Your task to perform on an android device: Search for energizer triple a on walmart.com, select the first entry, and add it to the cart. Image 0: 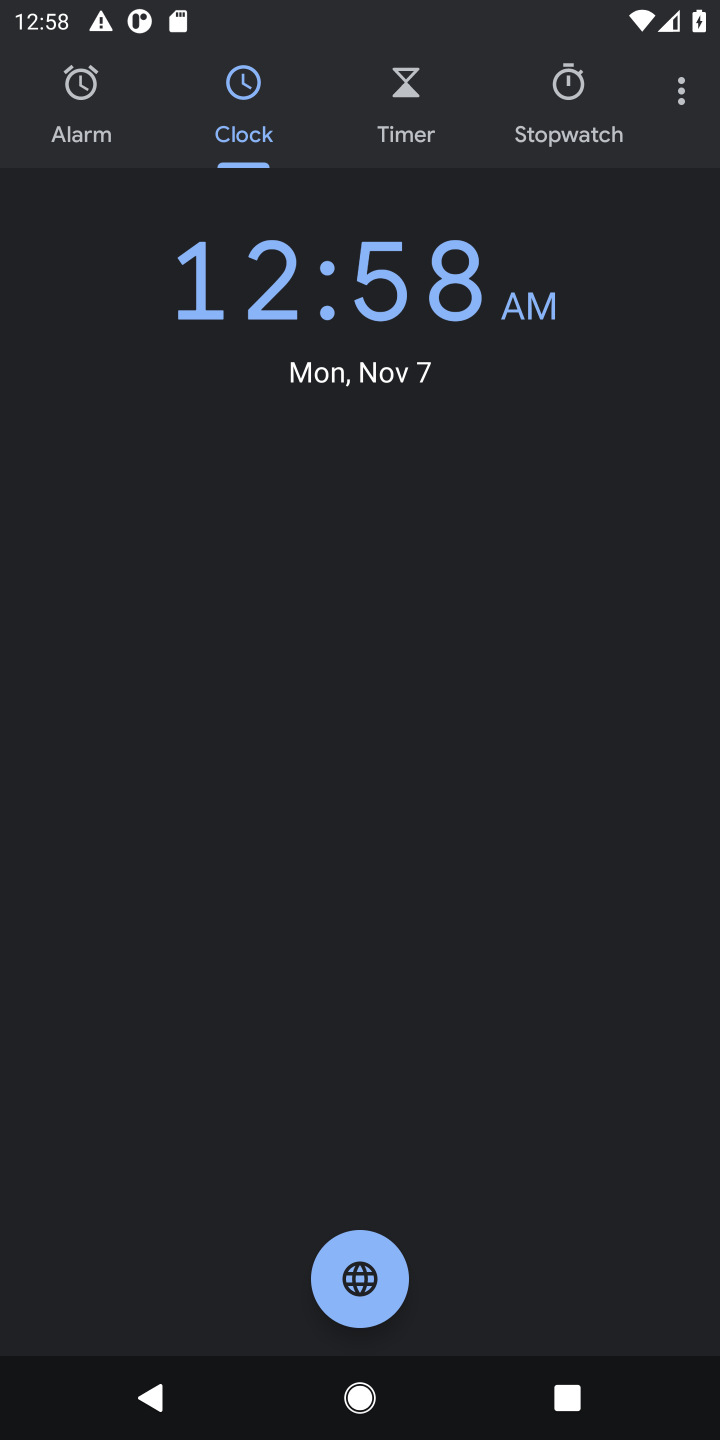
Step 0: press home button
Your task to perform on an android device: Search for energizer triple a on walmart.com, select the first entry, and add it to the cart. Image 1: 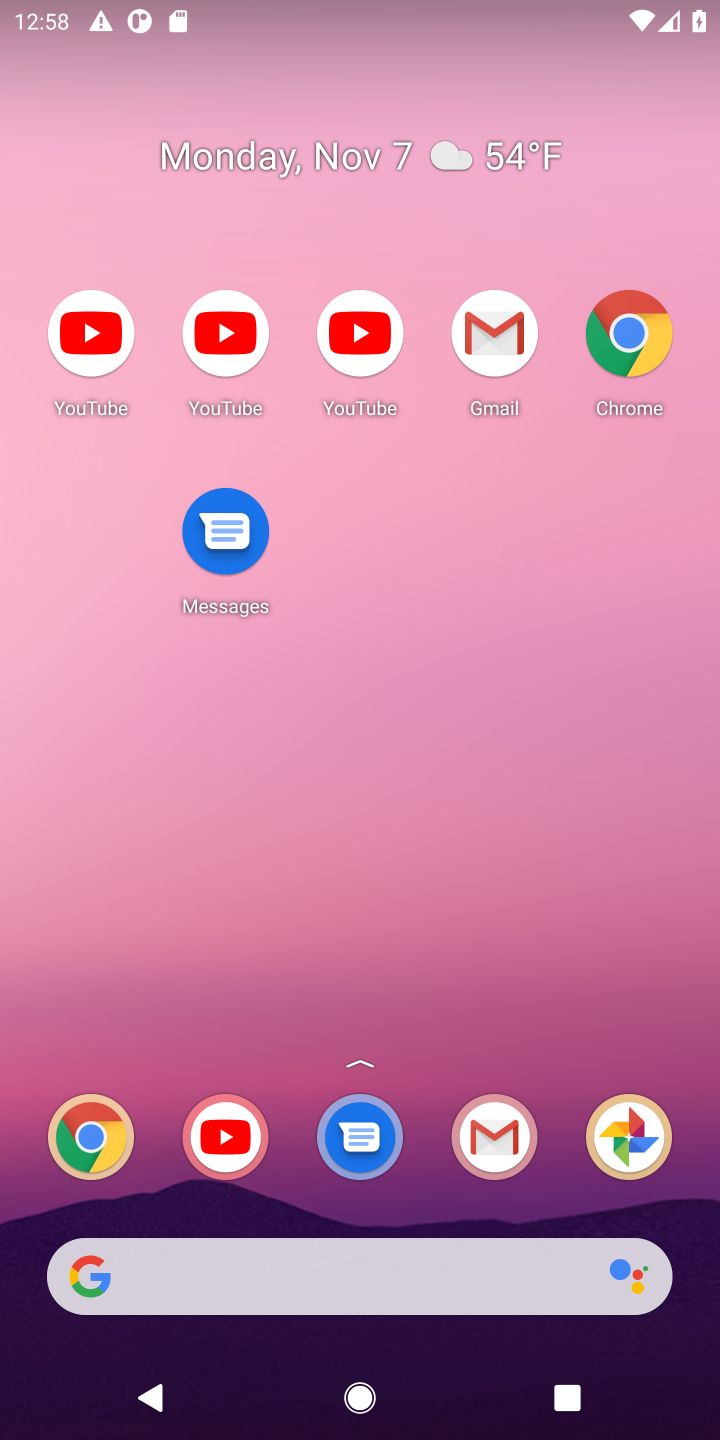
Step 1: drag from (410, 1178) to (352, 181)
Your task to perform on an android device: Search for energizer triple a on walmart.com, select the first entry, and add it to the cart. Image 2: 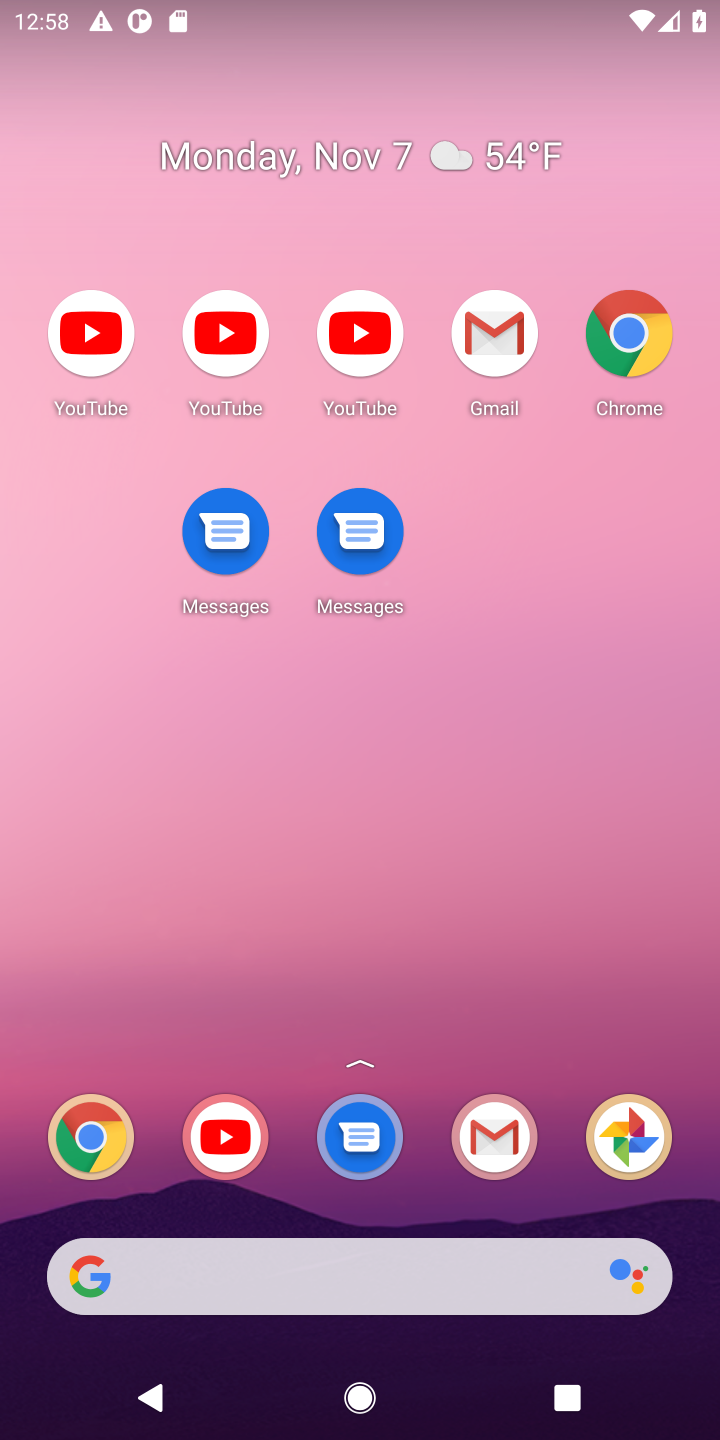
Step 2: drag from (431, 1192) to (419, 237)
Your task to perform on an android device: Search for energizer triple a on walmart.com, select the first entry, and add it to the cart. Image 3: 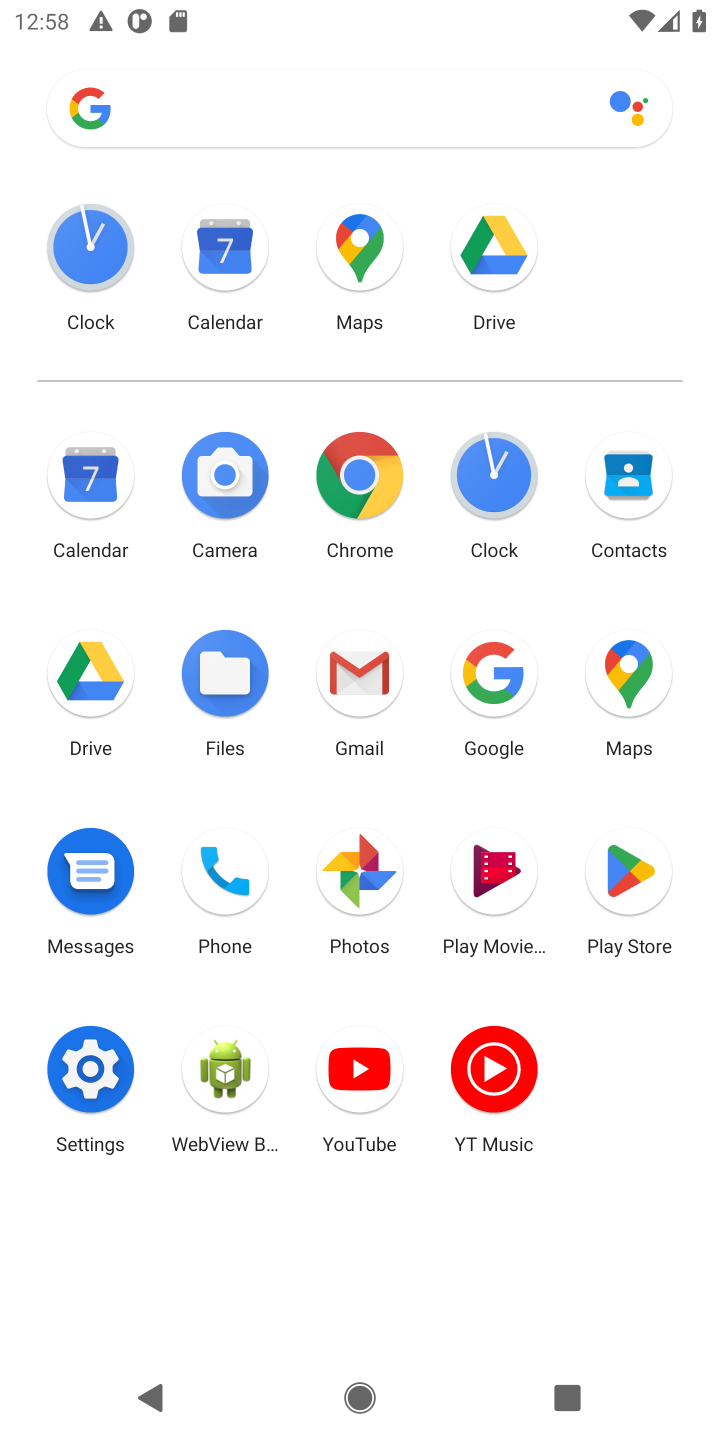
Step 3: click (364, 471)
Your task to perform on an android device: Search for energizer triple a on walmart.com, select the first entry, and add it to the cart. Image 4: 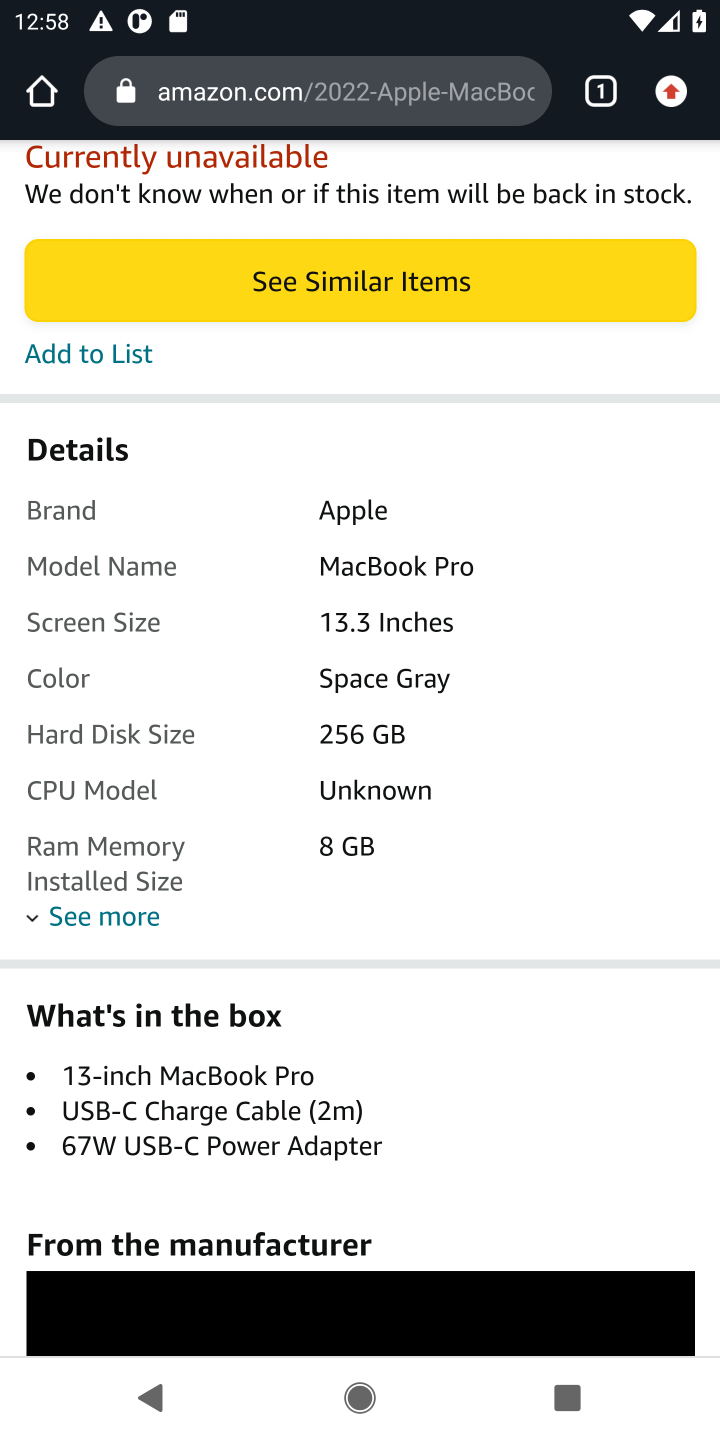
Step 4: drag from (445, 184) to (468, 921)
Your task to perform on an android device: Search for energizer triple a on walmart.com, select the first entry, and add it to the cart. Image 5: 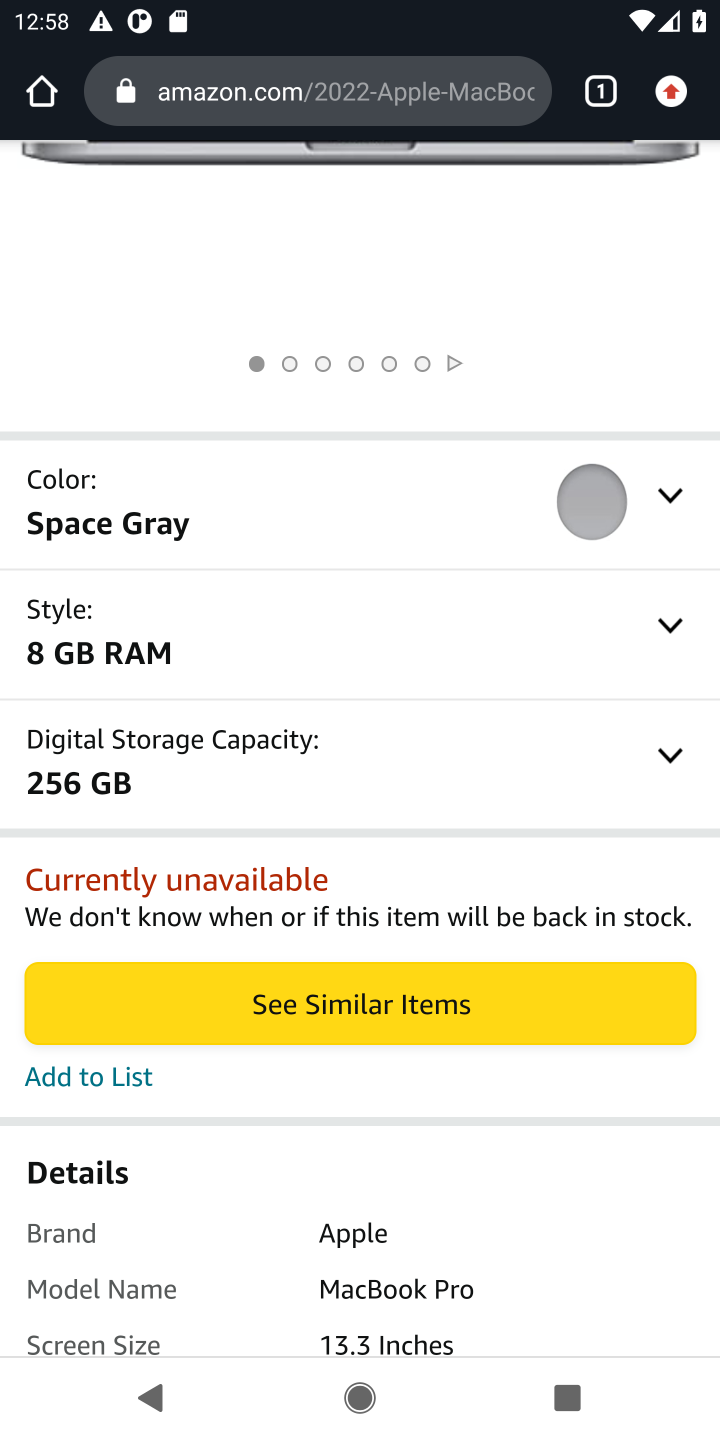
Step 5: drag from (439, 441) to (532, 1038)
Your task to perform on an android device: Search for energizer triple a on walmart.com, select the first entry, and add it to the cart. Image 6: 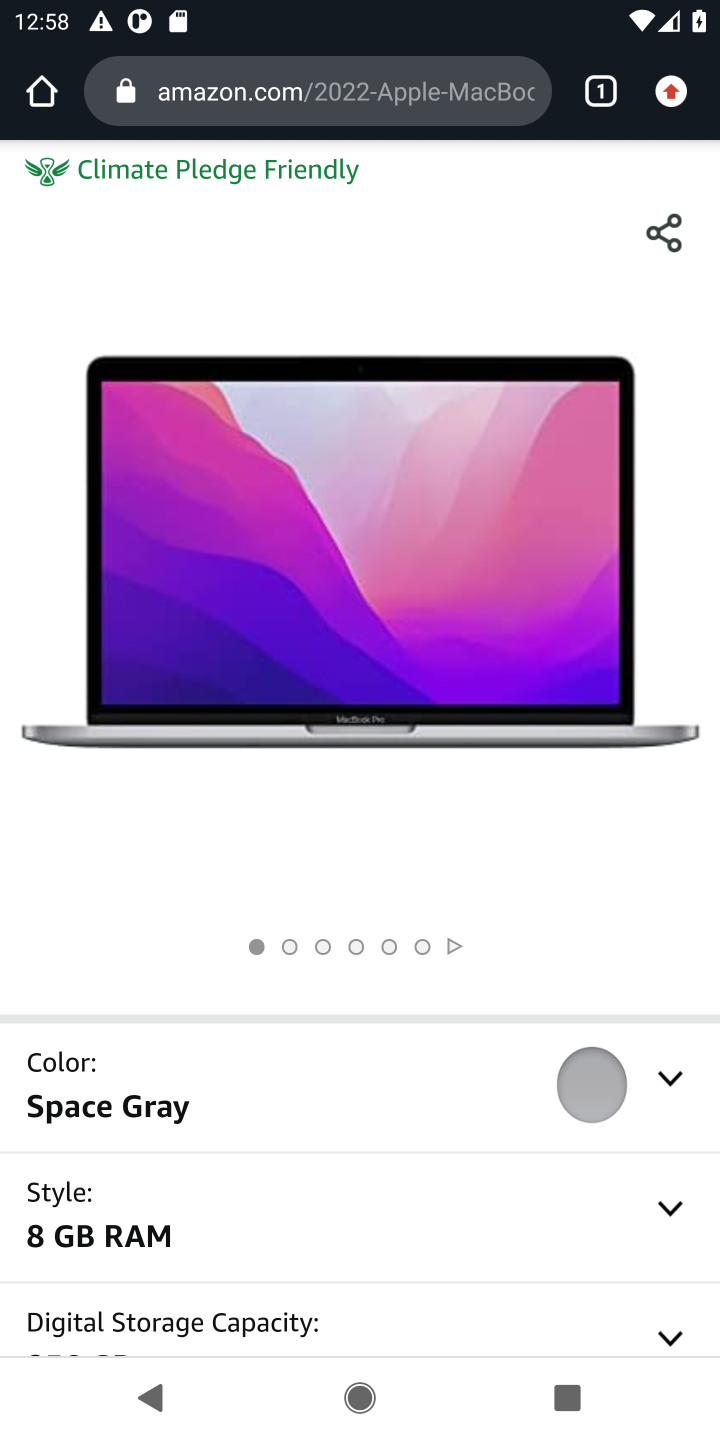
Step 6: click (404, 93)
Your task to perform on an android device: Search for energizer triple a on walmart.com, select the first entry, and add it to the cart. Image 7: 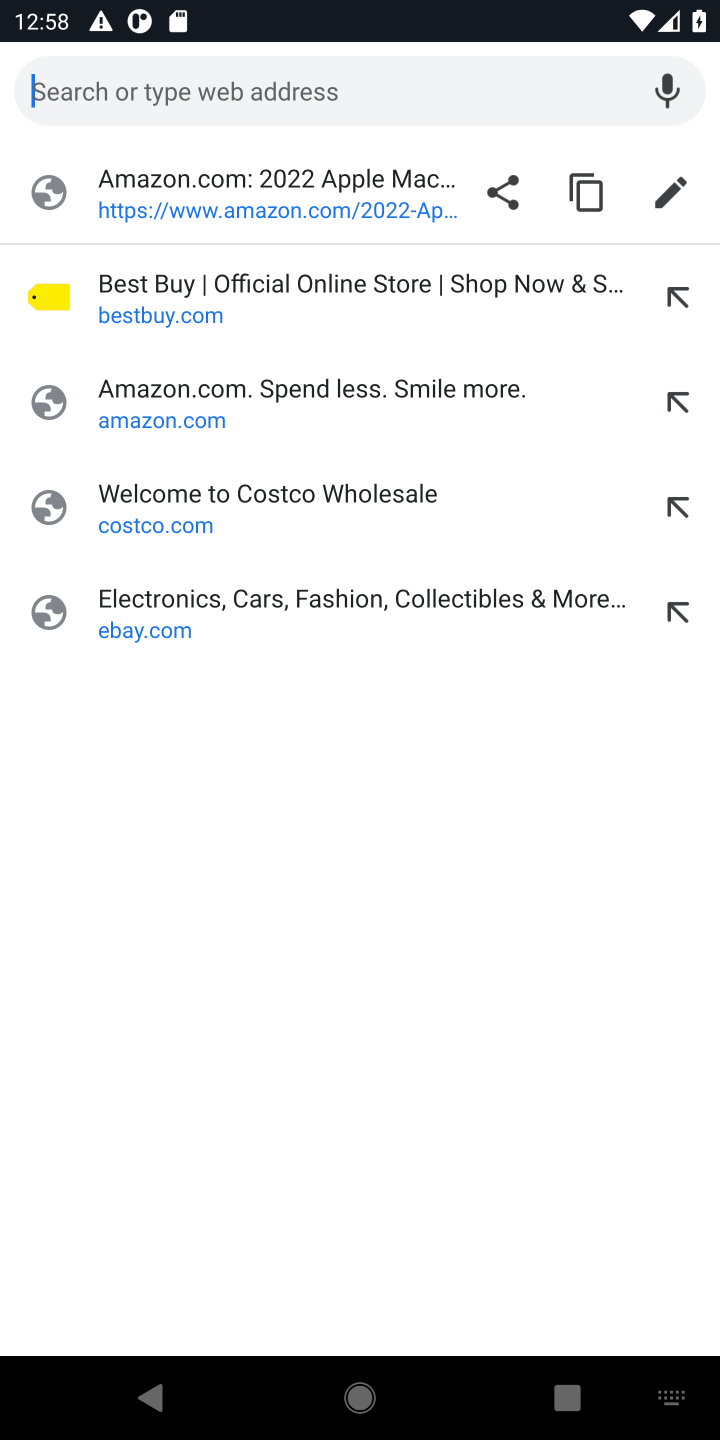
Step 7: type "walmart.com"
Your task to perform on an android device: Search for energizer triple a on walmart.com, select the first entry, and add it to the cart. Image 8: 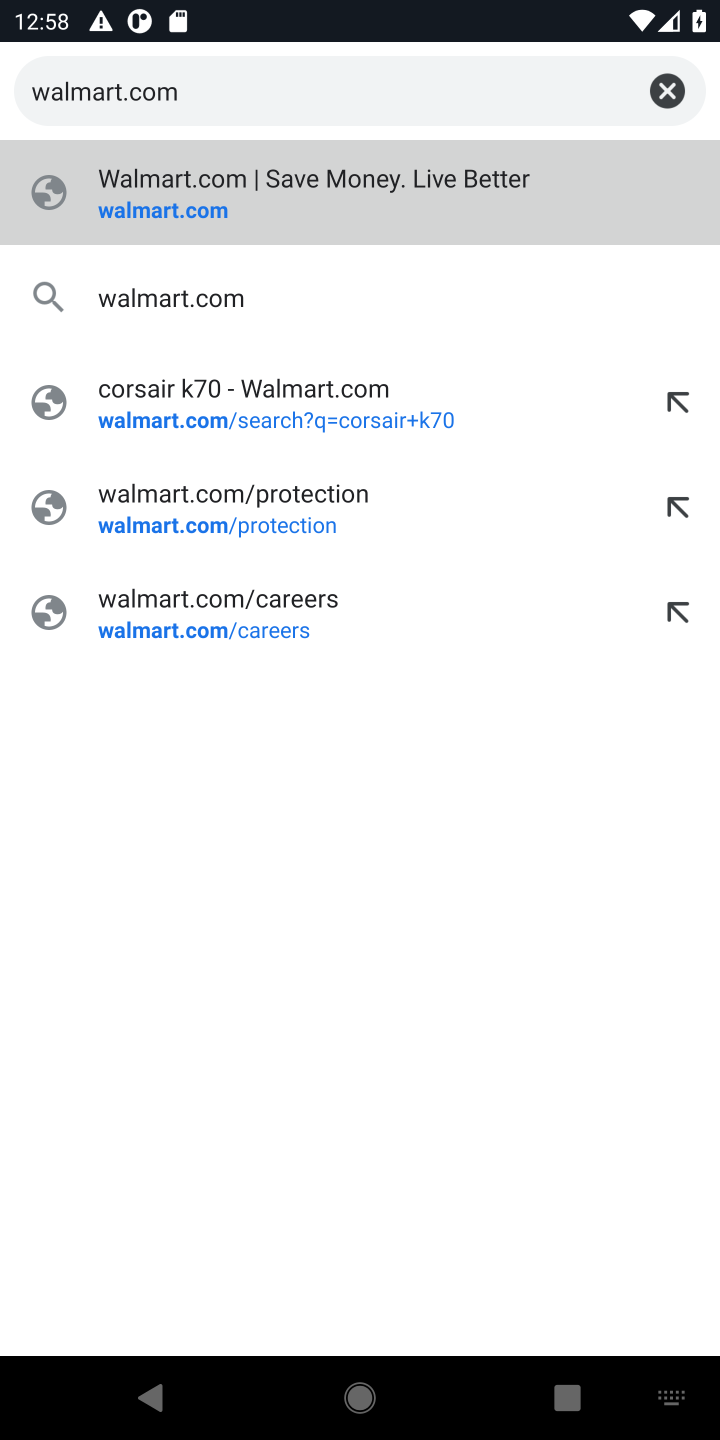
Step 8: press enter
Your task to perform on an android device: Search for energizer triple a on walmart.com, select the first entry, and add it to the cart. Image 9: 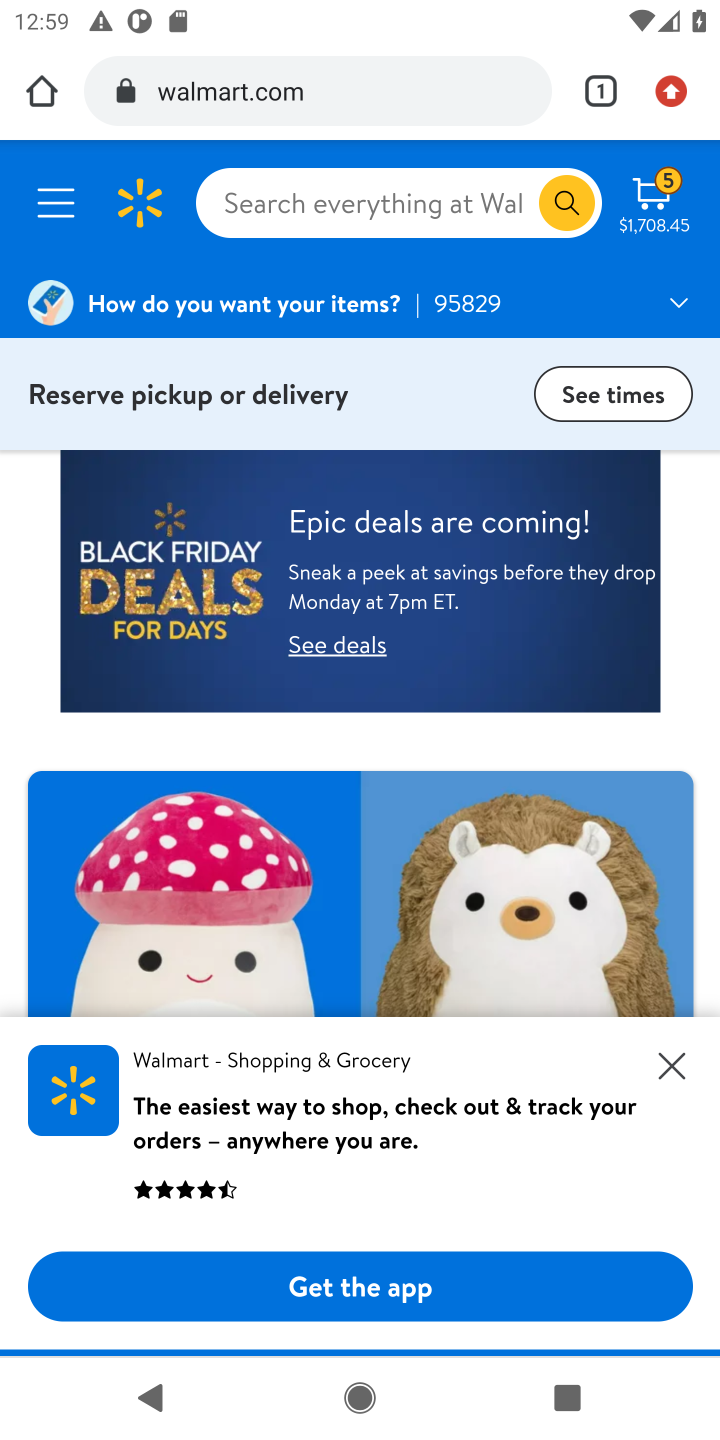
Step 9: click (334, 203)
Your task to perform on an android device: Search for energizer triple a on walmart.com, select the first entry, and add it to the cart. Image 10: 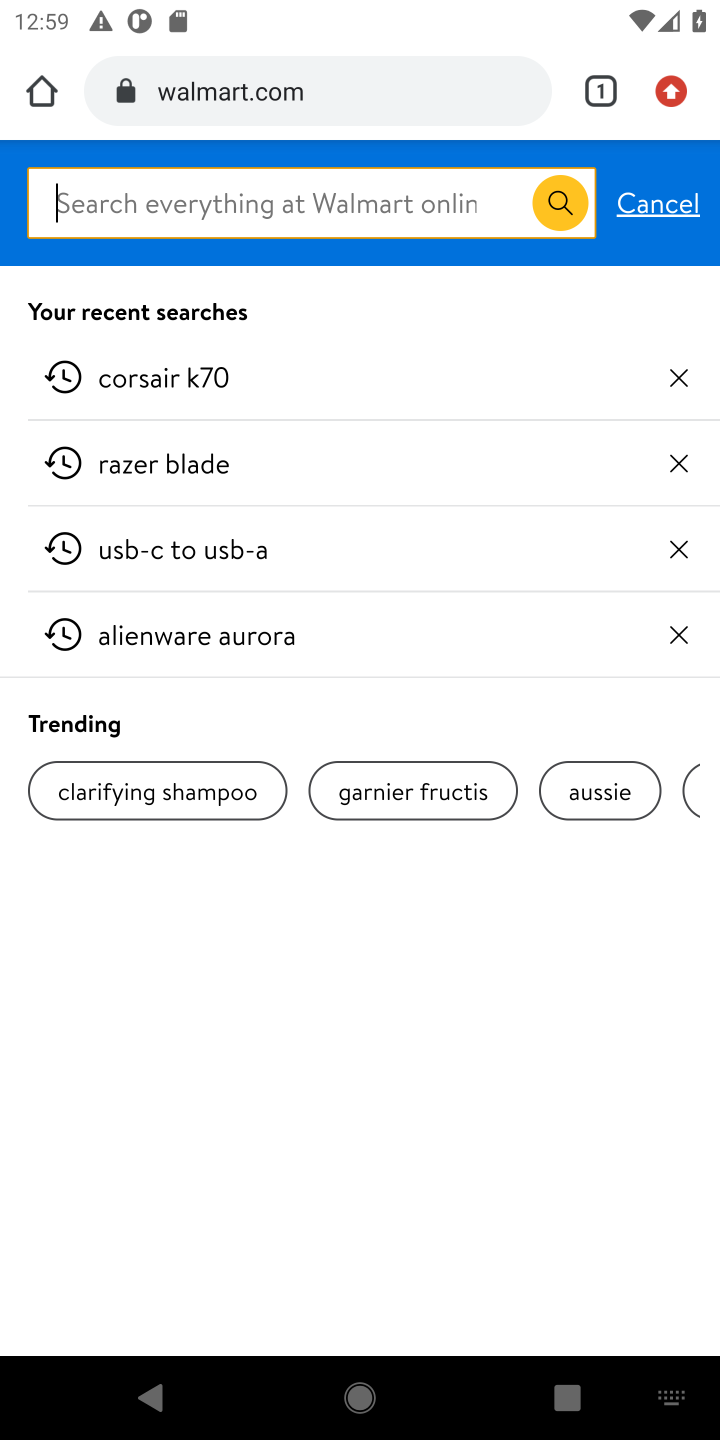
Step 10: type "energizer triple a"
Your task to perform on an android device: Search for energizer triple a on walmart.com, select the first entry, and add it to the cart. Image 11: 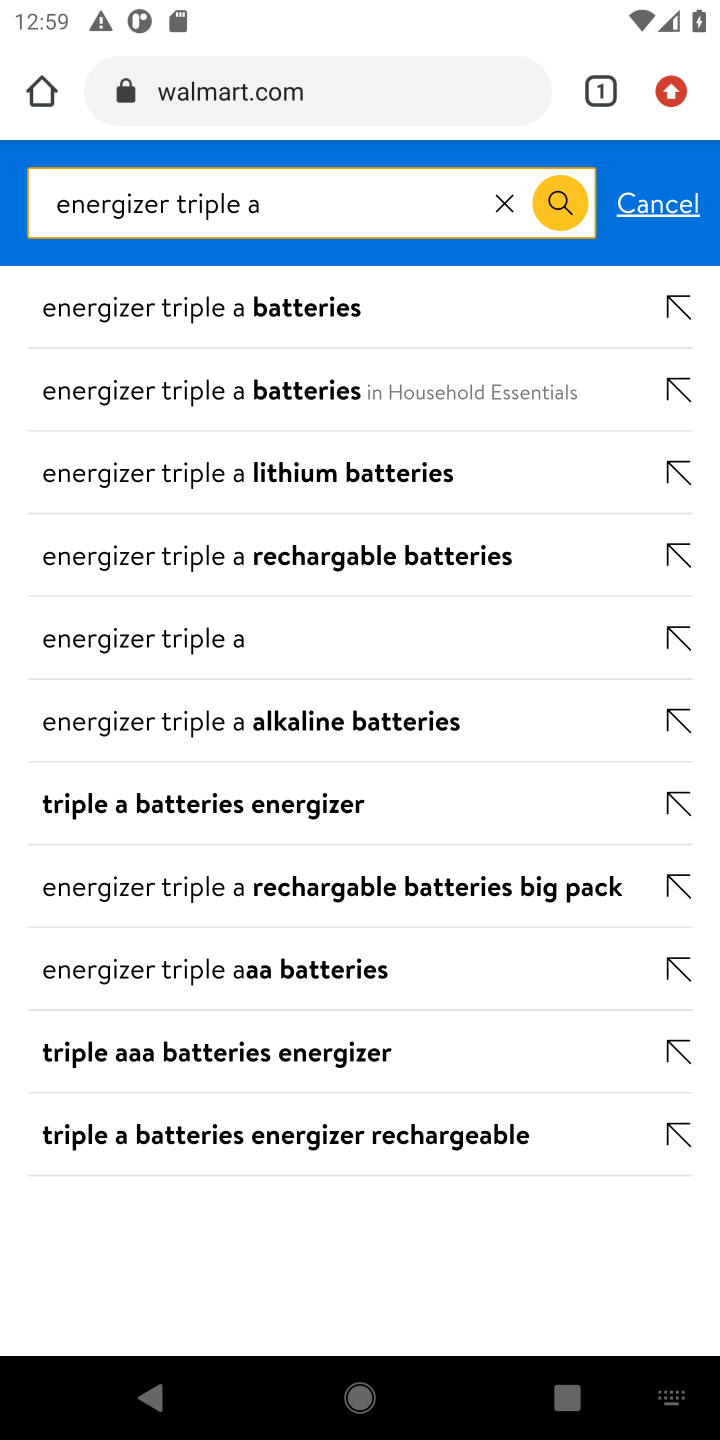
Step 11: press enter
Your task to perform on an android device: Search for energizer triple a on walmart.com, select the first entry, and add it to the cart. Image 12: 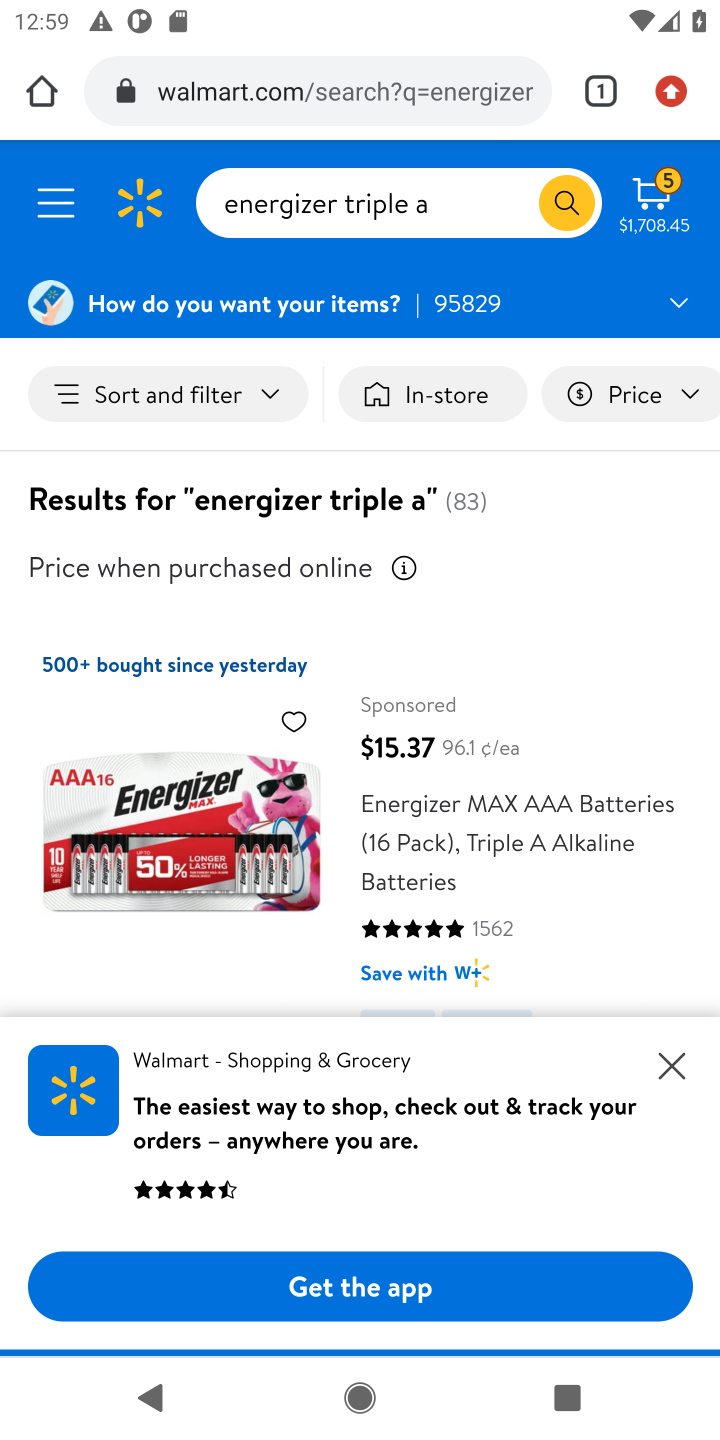
Step 12: drag from (438, 837) to (495, 298)
Your task to perform on an android device: Search for energizer triple a on walmart.com, select the first entry, and add it to the cart. Image 13: 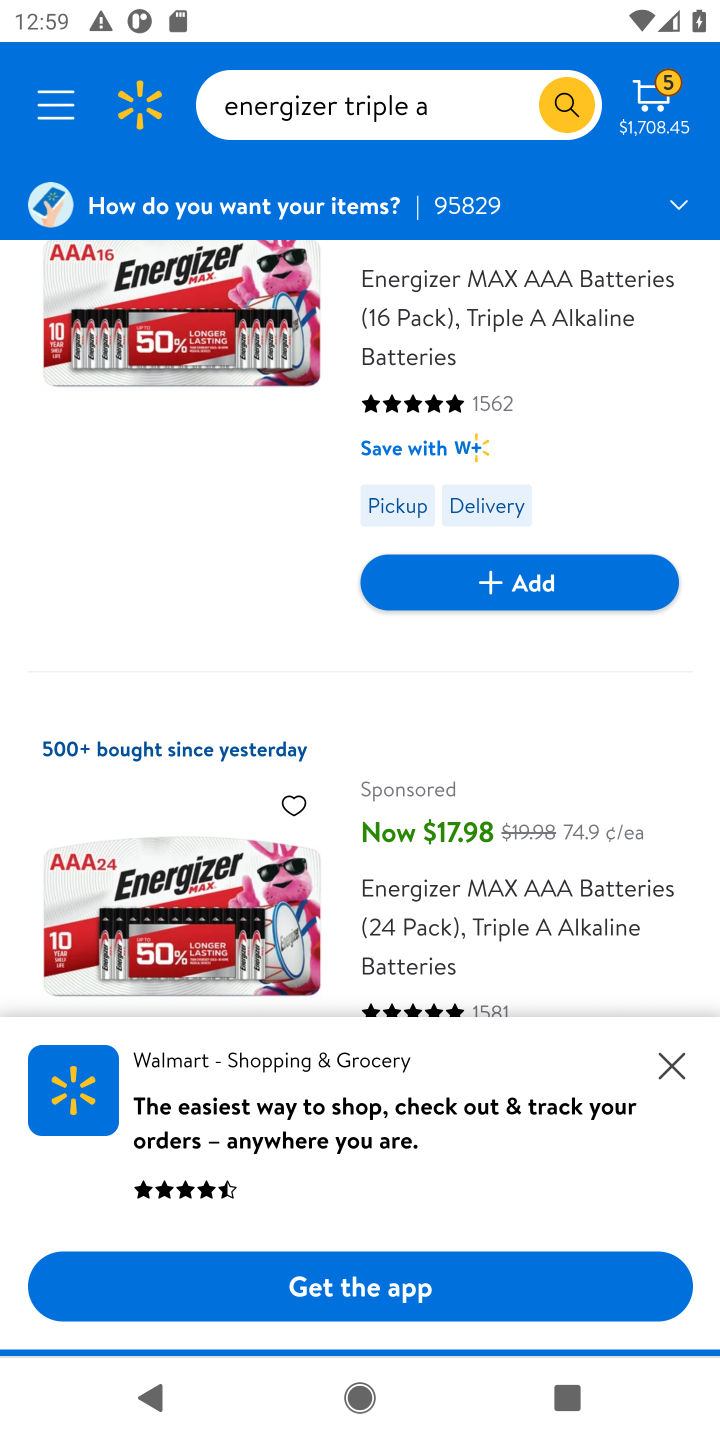
Step 13: drag from (493, 933) to (546, 249)
Your task to perform on an android device: Search for energizer triple a on walmart.com, select the first entry, and add it to the cart. Image 14: 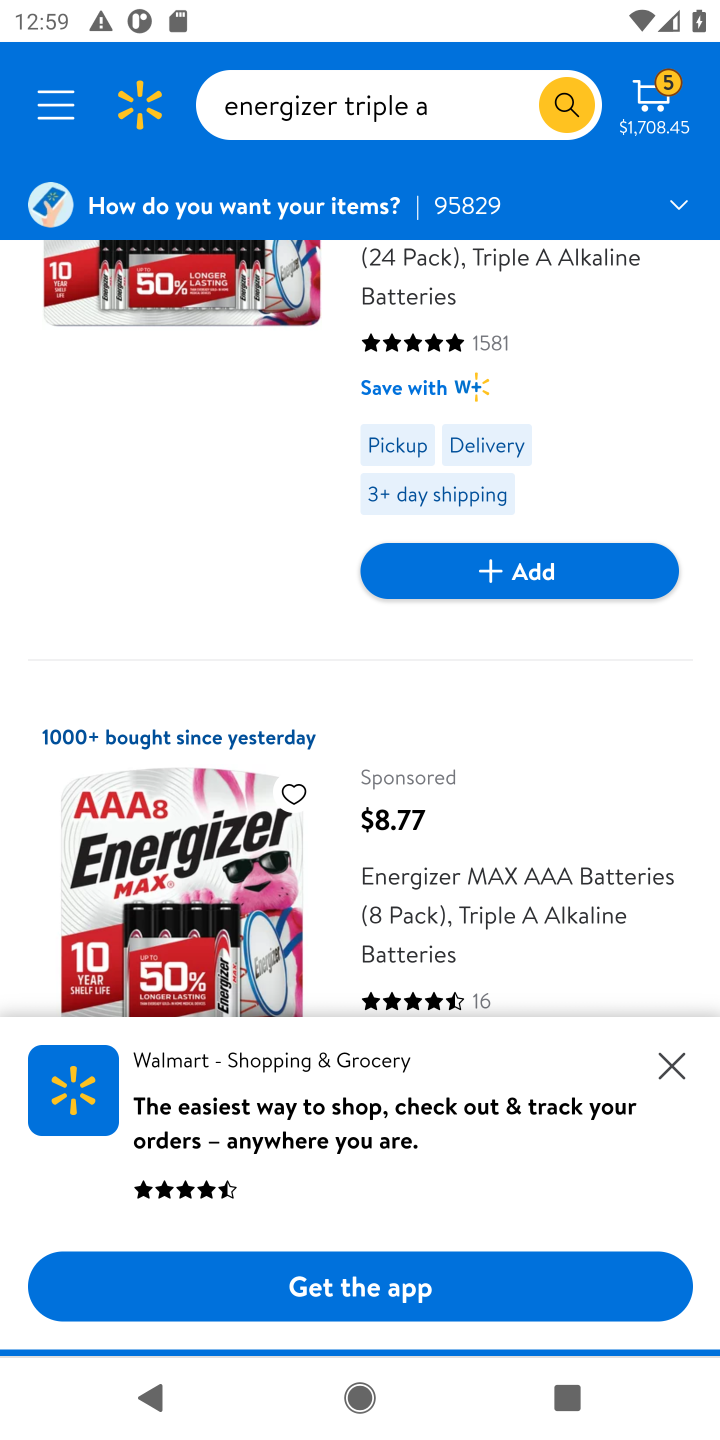
Step 14: drag from (491, 820) to (558, 376)
Your task to perform on an android device: Search for energizer triple a on walmart.com, select the first entry, and add it to the cart. Image 15: 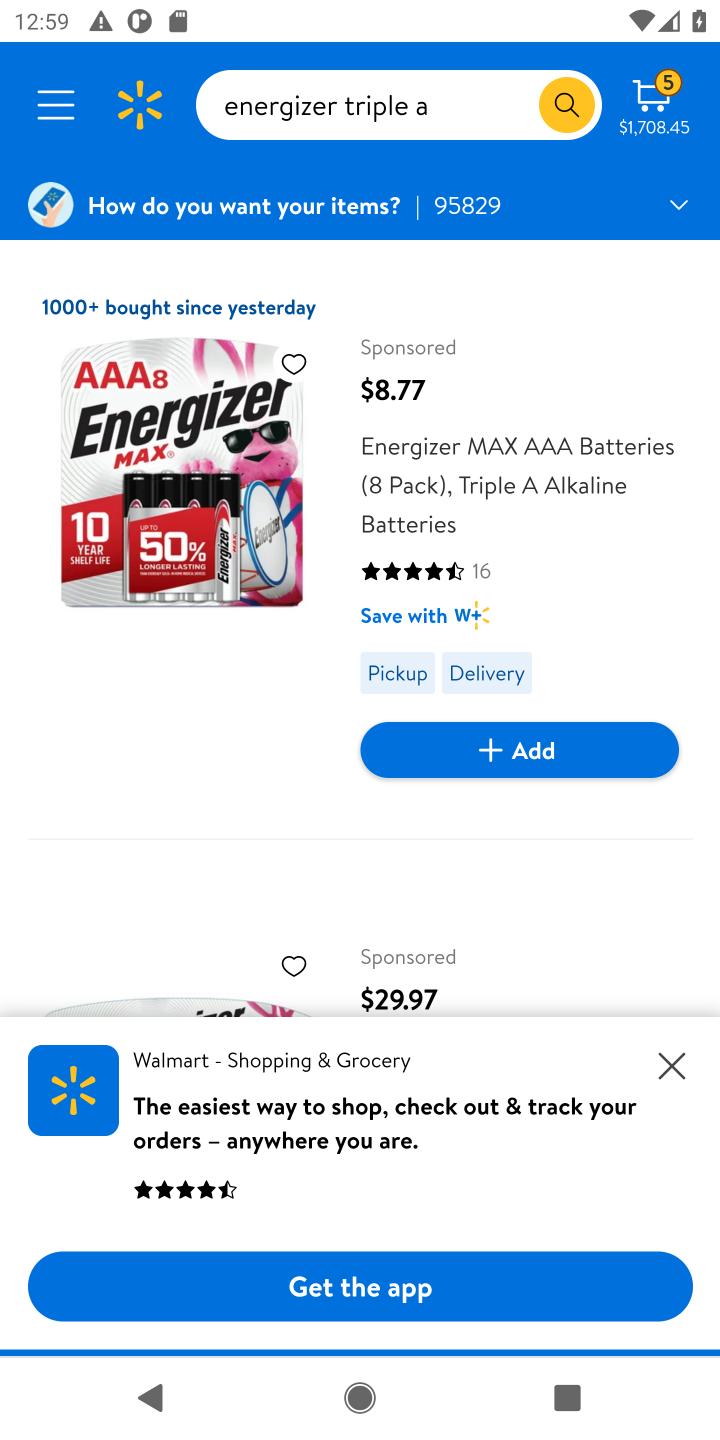
Step 15: drag from (430, 925) to (421, 109)
Your task to perform on an android device: Search for energizer triple a on walmart.com, select the first entry, and add it to the cart. Image 16: 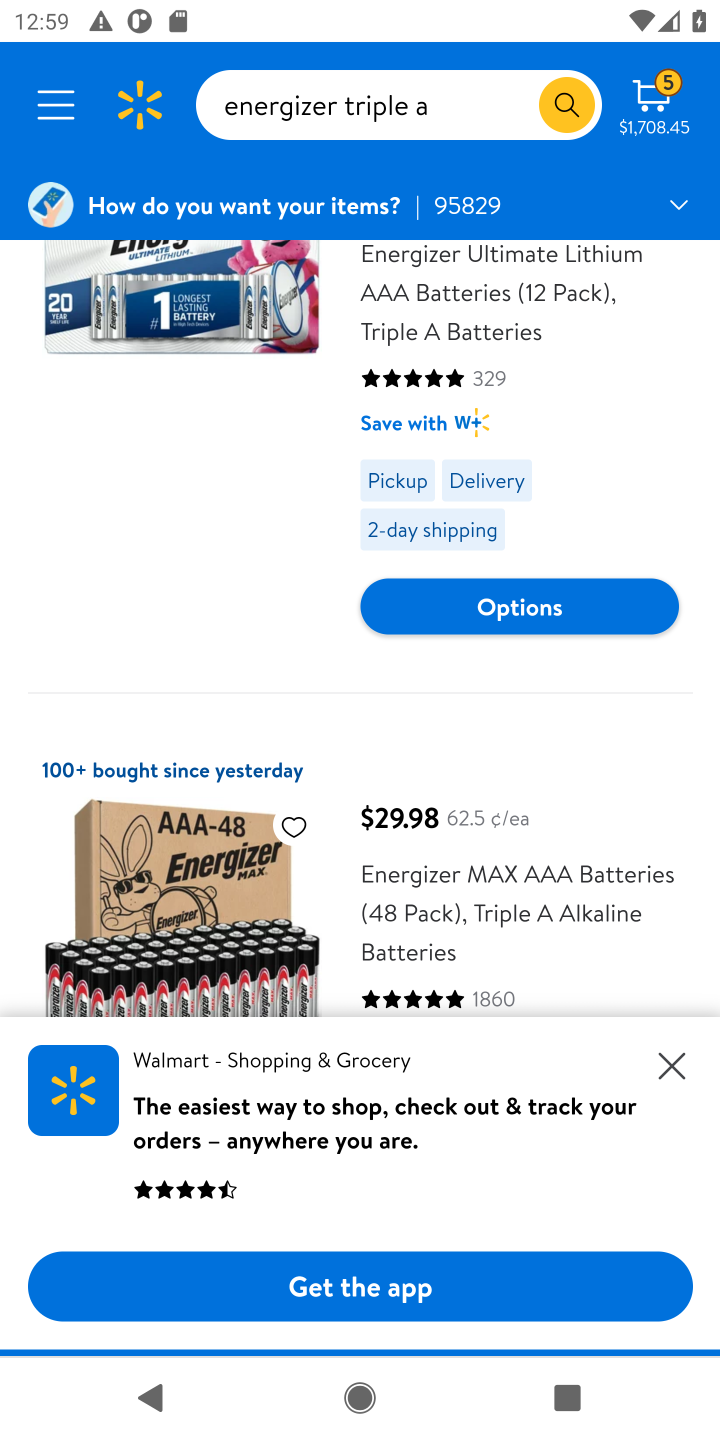
Step 16: drag from (572, 914) to (560, 459)
Your task to perform on an android device: Search for energizer triple a on walmart.com, select the first entry, and add it to the cart. Image 17: 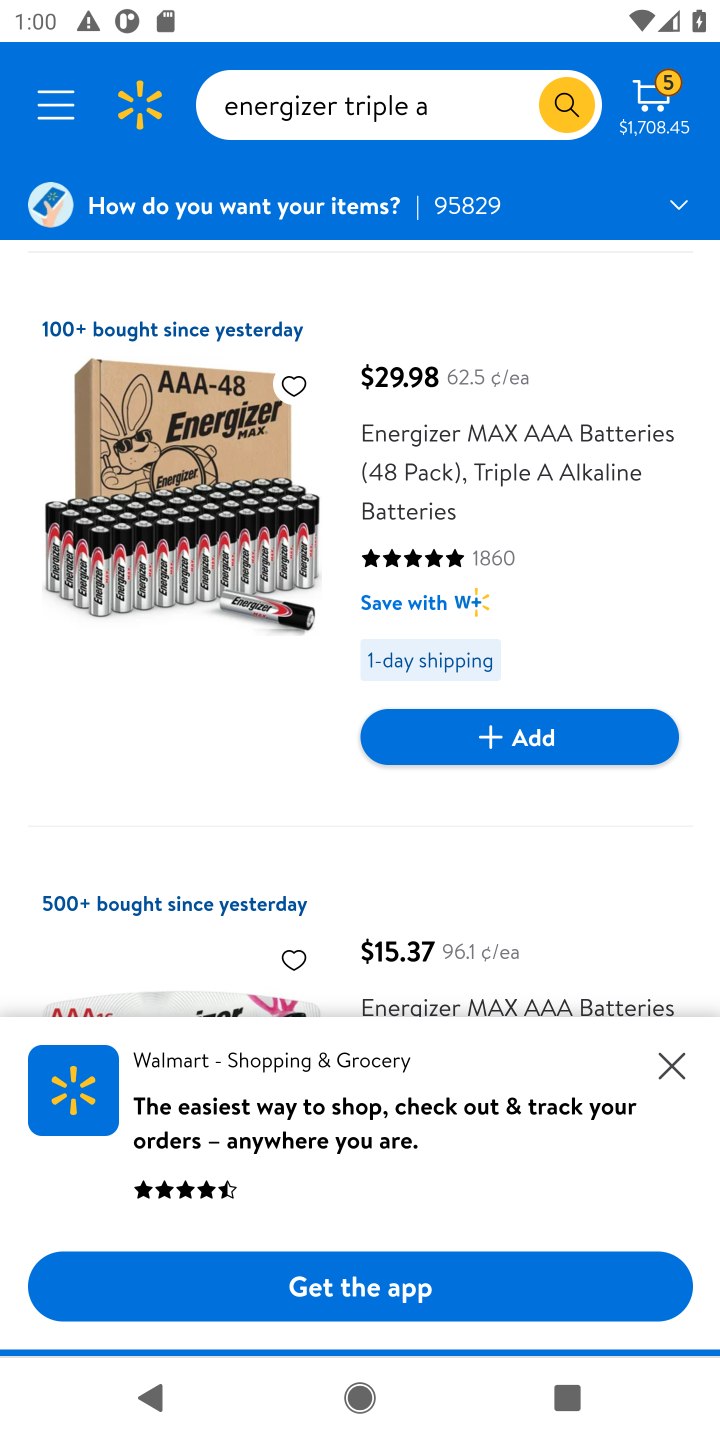
Step 17: click (538, 732)
Your task to perform on an android device: Search for energizer triple a on walmart.com, select the first entry, and add it to the cart. Image 18: 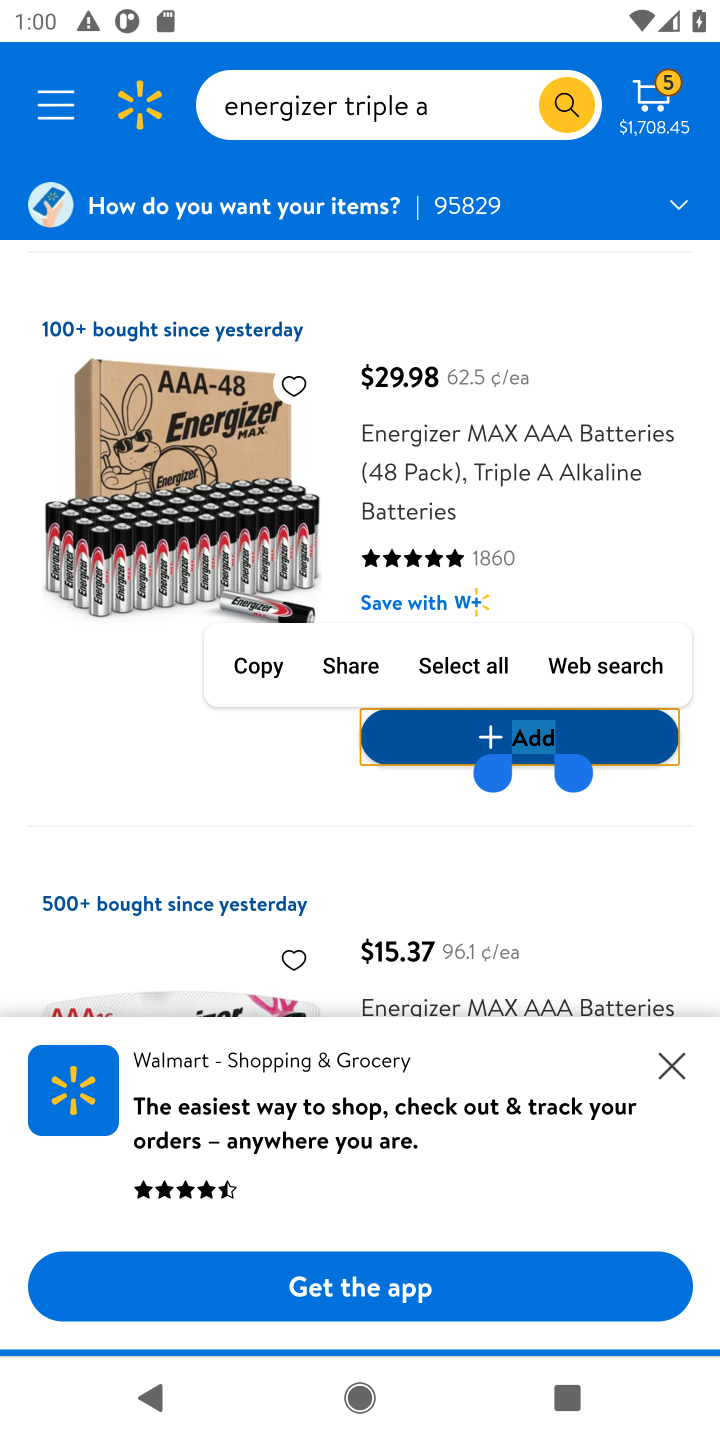
Step 18: click (467, 741)
Your task to perform on an android device: Search for energizer triple a on walmart.com, select the first entry, and add it to the cart. Image 19: 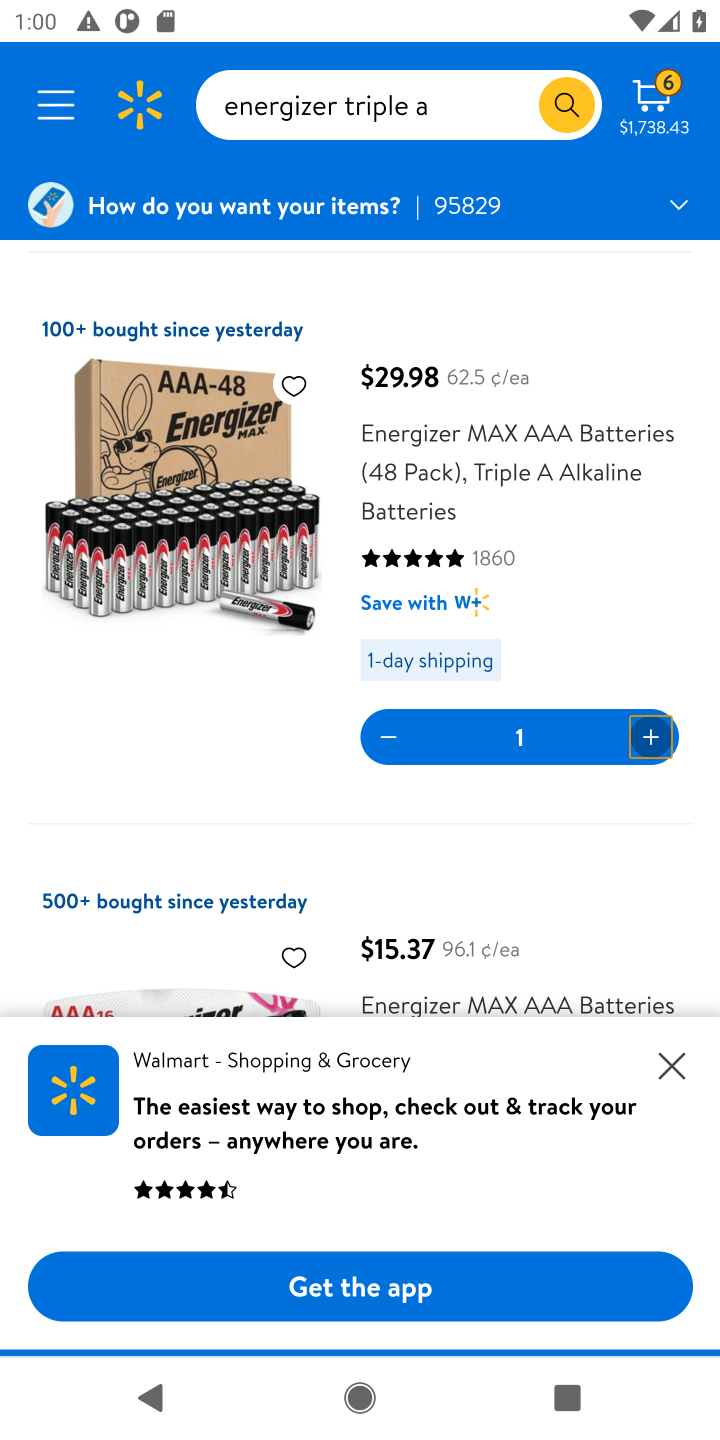
Step 19: task complete